Your task to perform on an android device: see tabs open on other devices in the chrome app Image 0: 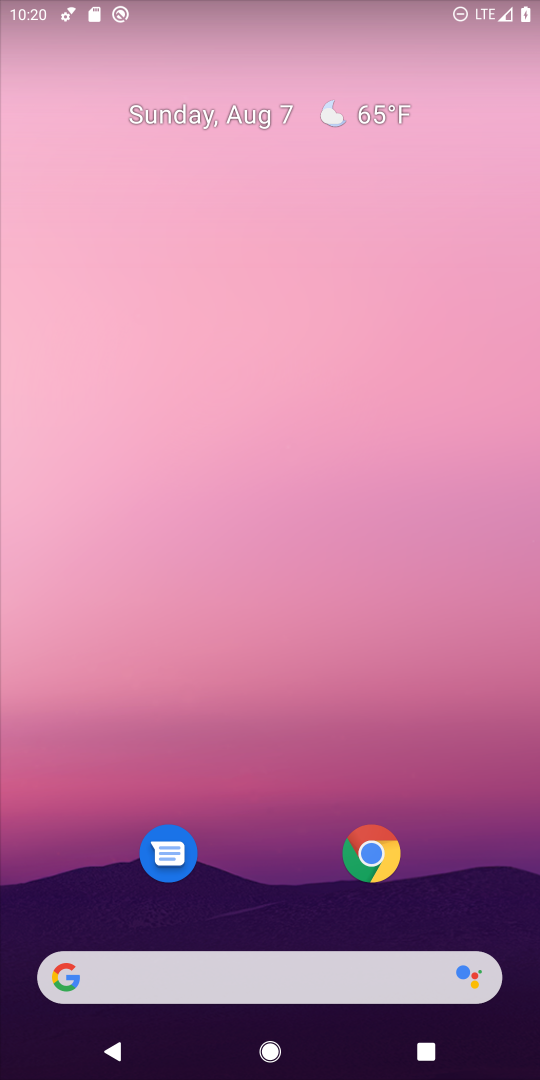
Step 0: drag from (188, 968) to (203, 367)
Your task to perform on an android device: see tabs open on other devices in the chrome app Image 1: 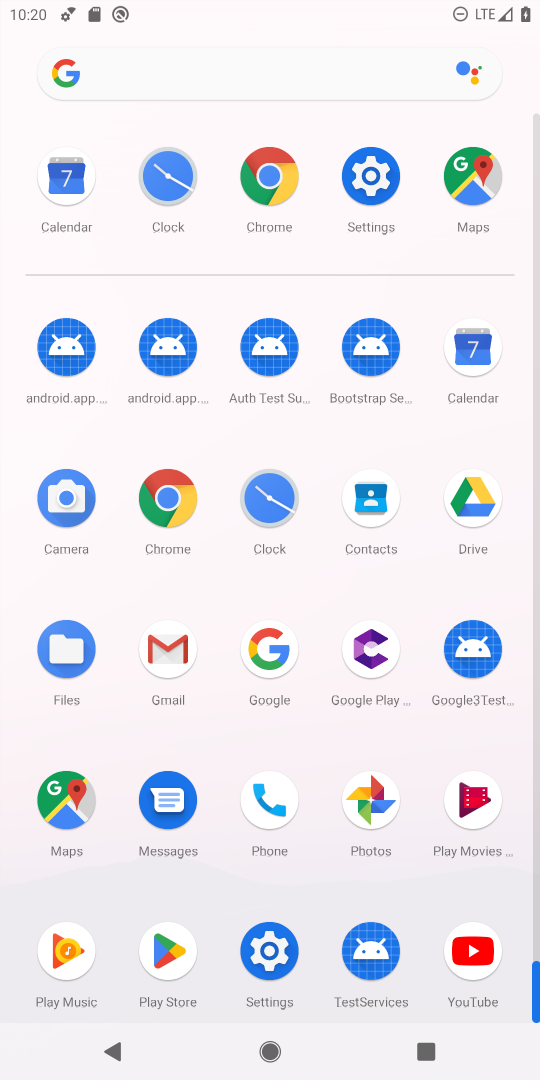
Step 1: click (165, 489)
Your task to perform on an android device: see tabs open on other devices in the chrome app Image 2: 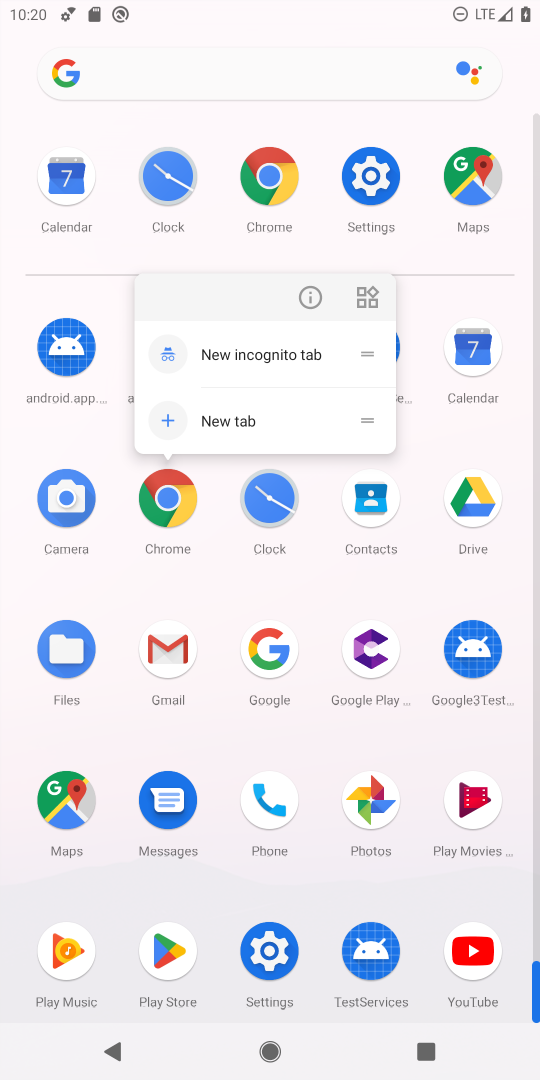
Step 2: click (159, 494)
Your task to perform on an android device: see tabs open on other devices in the chrome app Image 3: 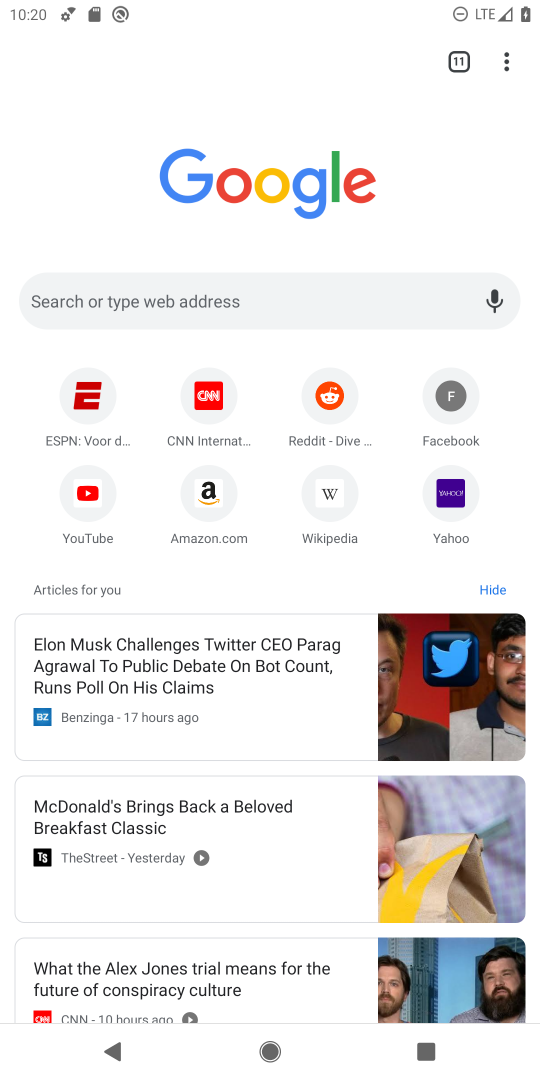
Step 3: click (509, 64)
Your task to perform on an android device: see tabs open on other devices in the chrome app Image 4: 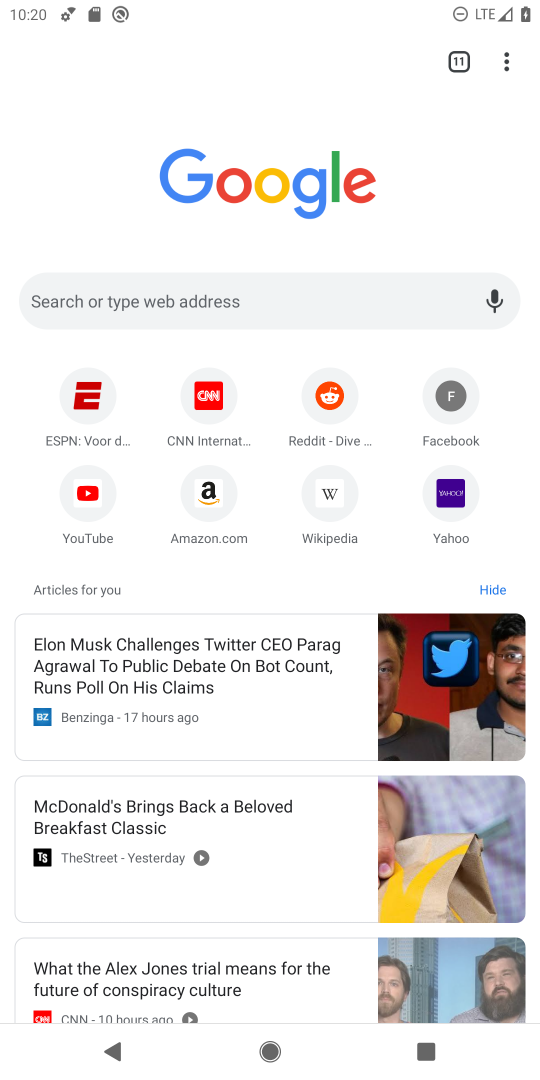
Step 4: click (509, 64)
Your task to perform on an android device: see tabs open on other devices in the chrome app Image 5: 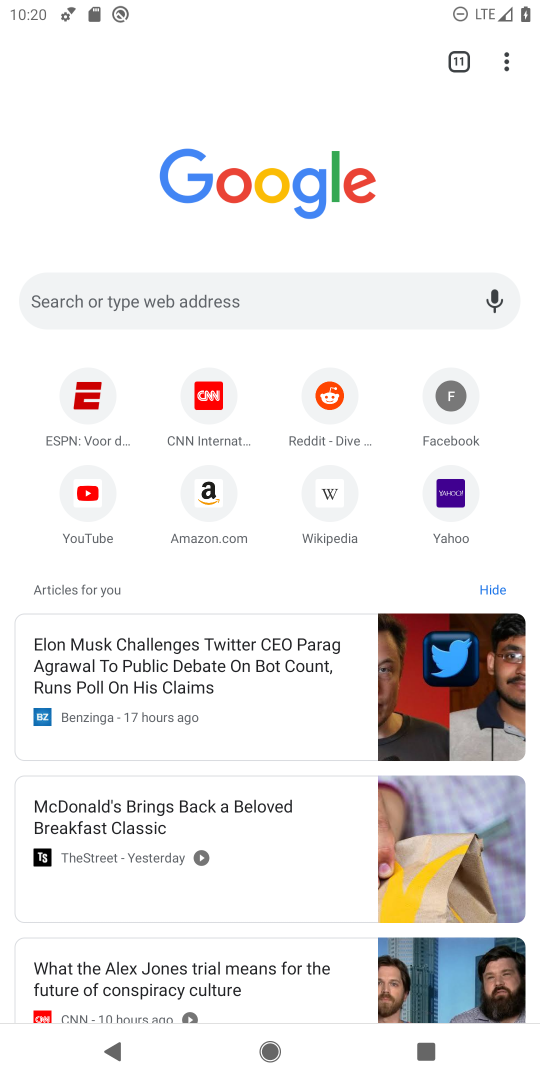
Step 5: click (509, 64)
Your task to perform on an android device: see tabs open on other devices in the chrome app Image 6: 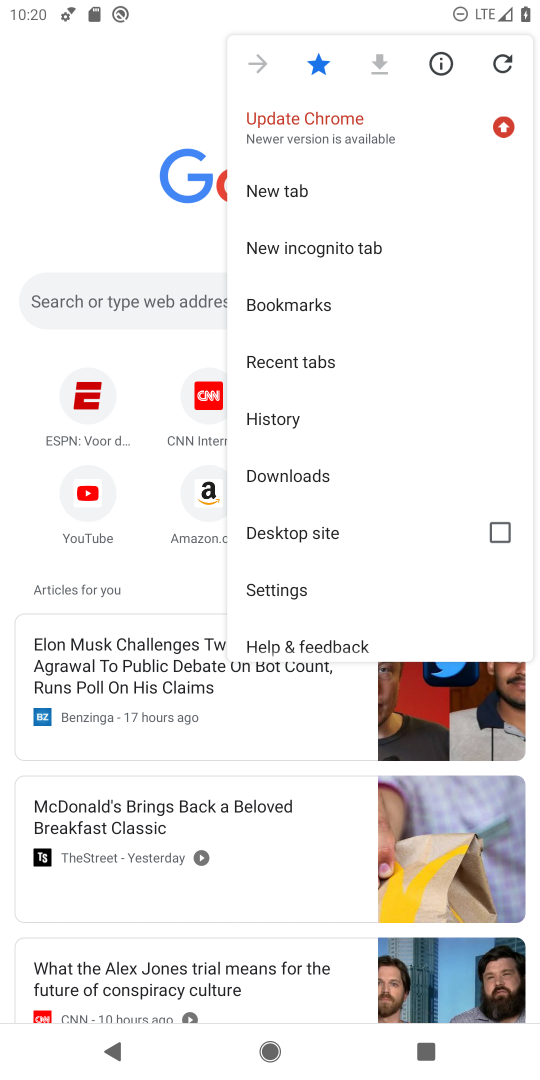
Step 6: click (278, 585)
Your task to perform on an android device: see tabs open on other devices in the chrome app Image 7: 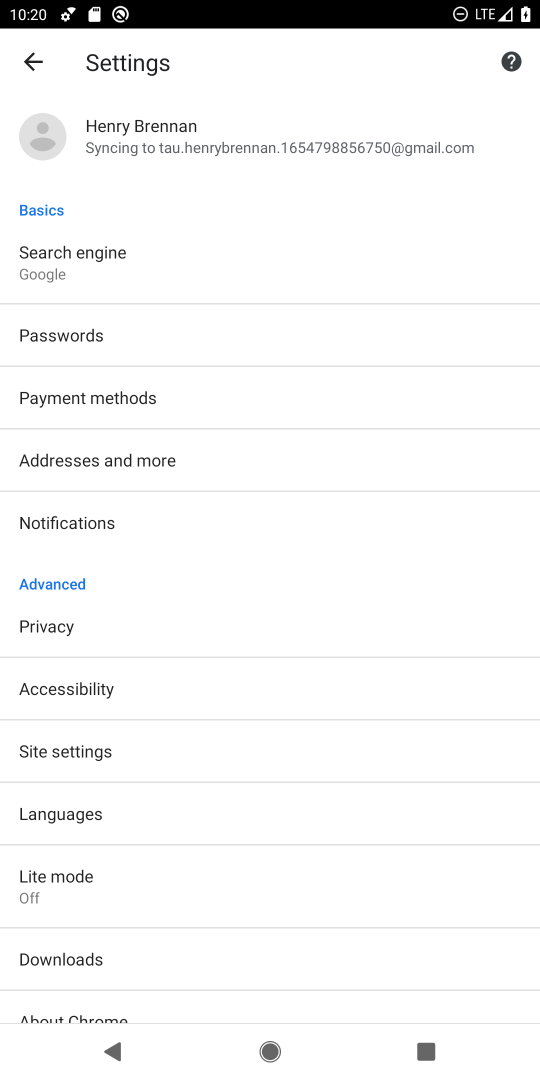
Step 7: drag from (153, 955) to (182, 653)
Your task to perform on an android device: see tabs open on other devices in the chrome app Image 8: 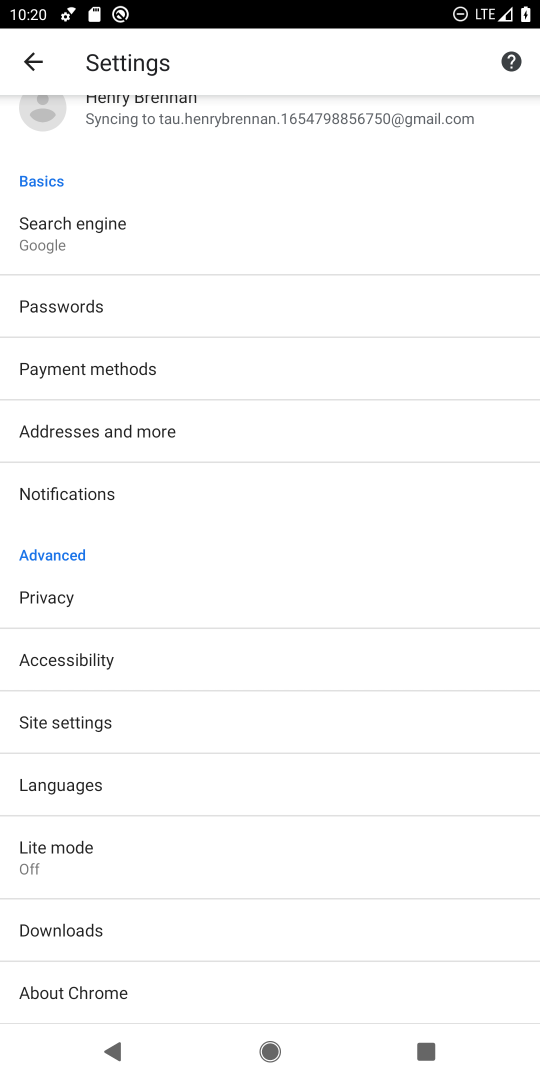
Step 8: click (24, 48)
Your task to perform on an android device: see tabs open on other devices in the chrome app Image 9: 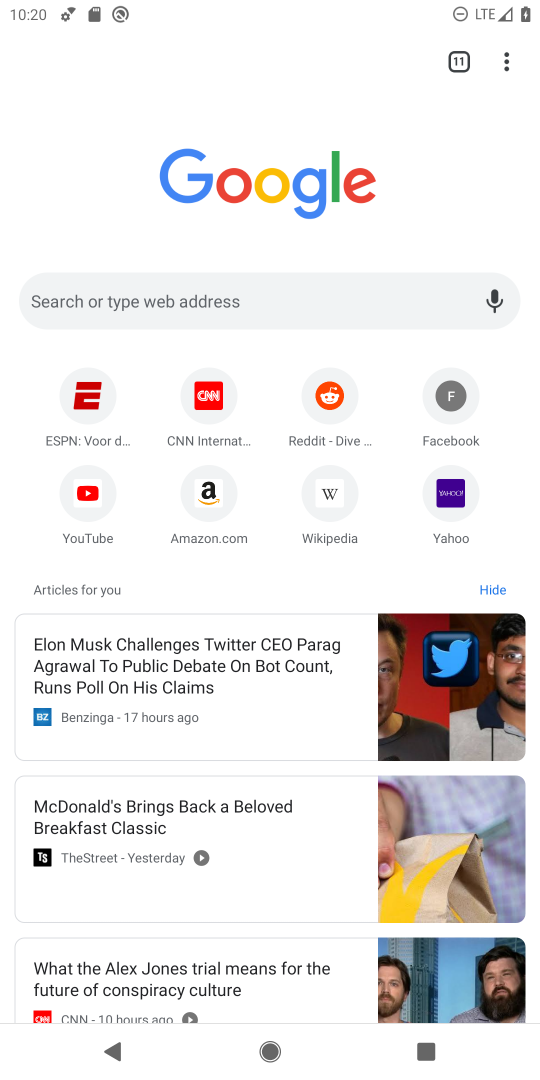
Step 9: click (502, 49)
Your task to perform on an android device: see tabs open on other devices in the chrome app Image 10: 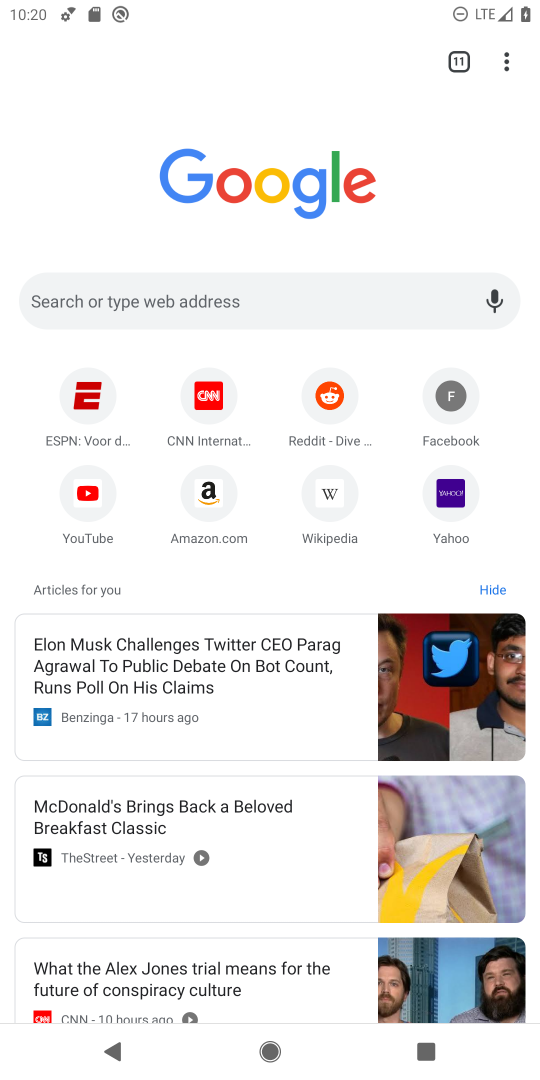
Step 10: click (505, 66)
Your task to perform on an android device: see tabs open on other devices in the chrome app Image 11: 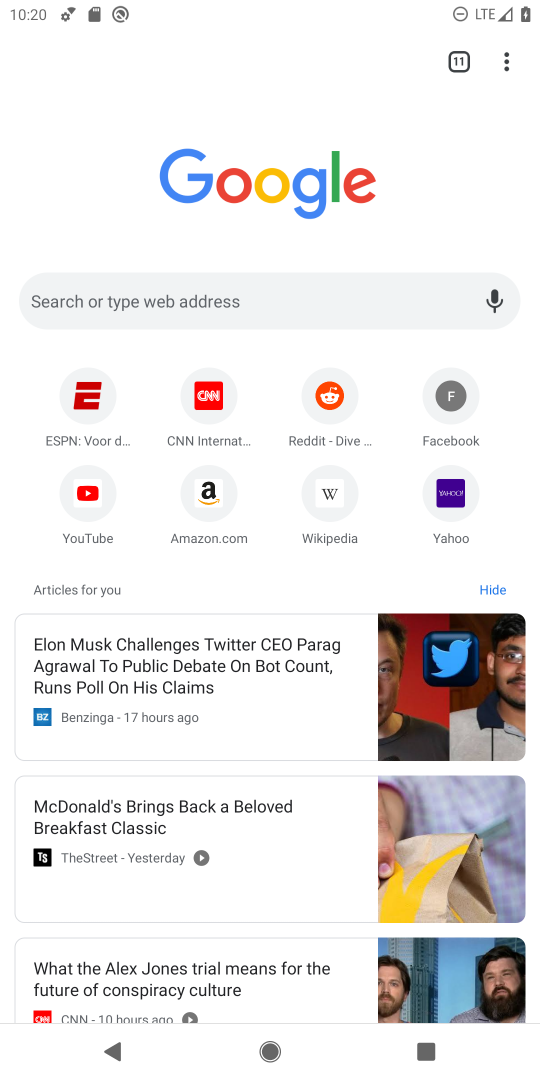
Step 11: click (522, 52)
Your task to perform on an android device: see tabs open on other devices in the chrome app Image 12: 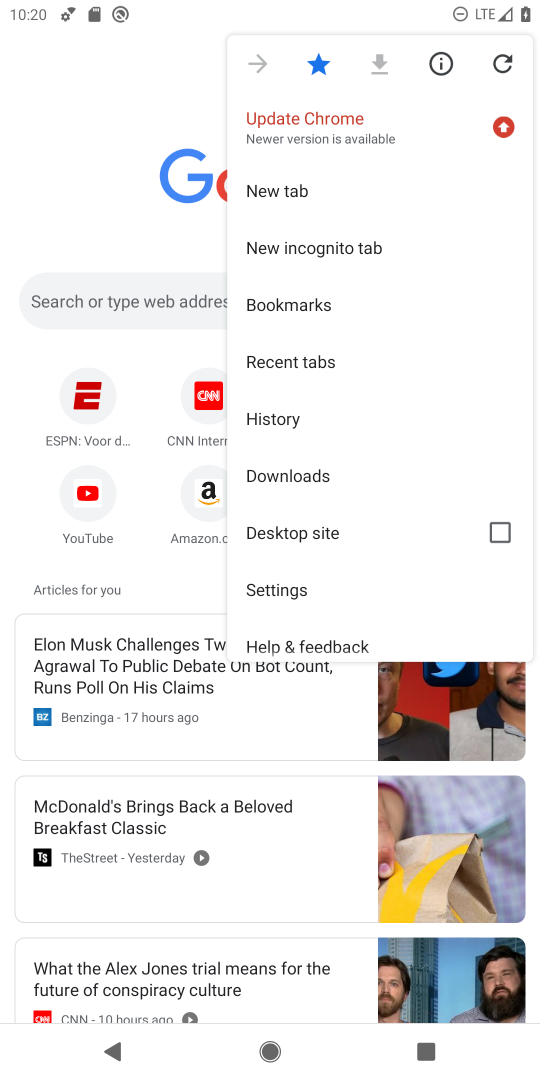
Step 12: click (272, 415)
Your task to perform on an android device: see tabs open on other devices in the chrome app Image 13: 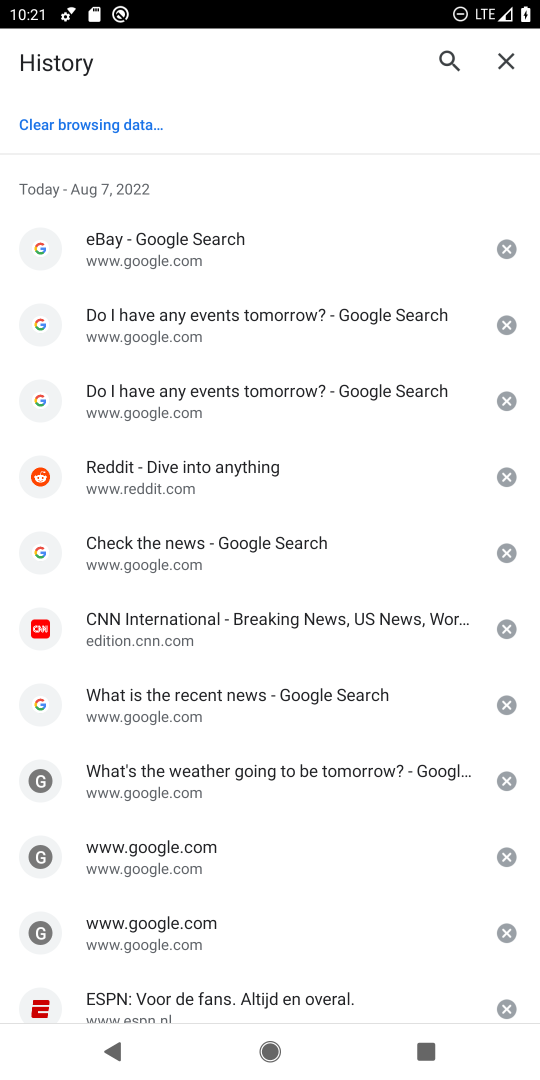
Step 13: task complete